Your task to perform on an android device: open chrome and create a bookmark for the current page Image 0: 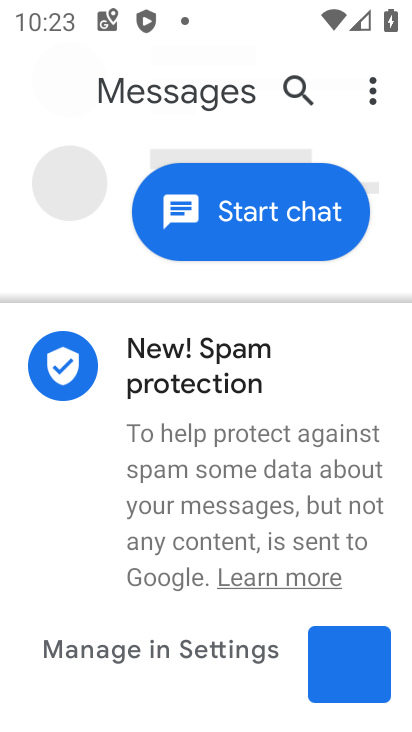
Step 0: press home button
Your task to perform on an android device: open chrome and create a bookmark for the current page Image 1: 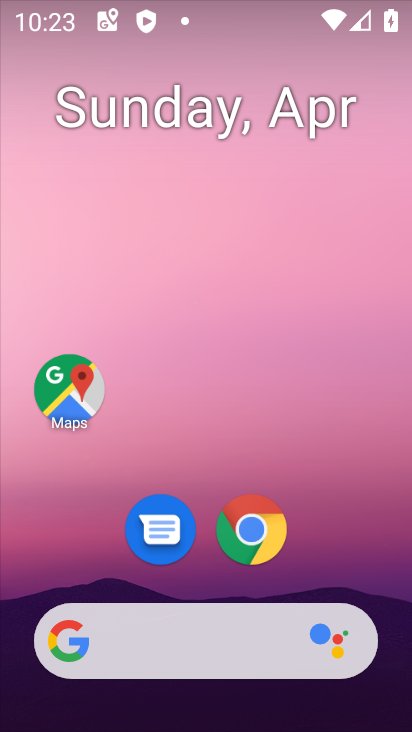
Step 1: click (254, 523)
Your task to perform on an android device: open chrome and create a bookmark for the current page Image 2: 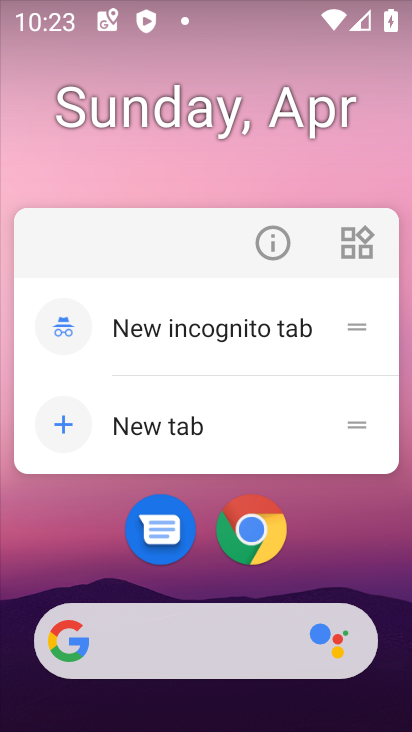
Step 2: click (247, 523)
Your task to perform on an android device: open chrome and create a bookmark for the current page Image 3: 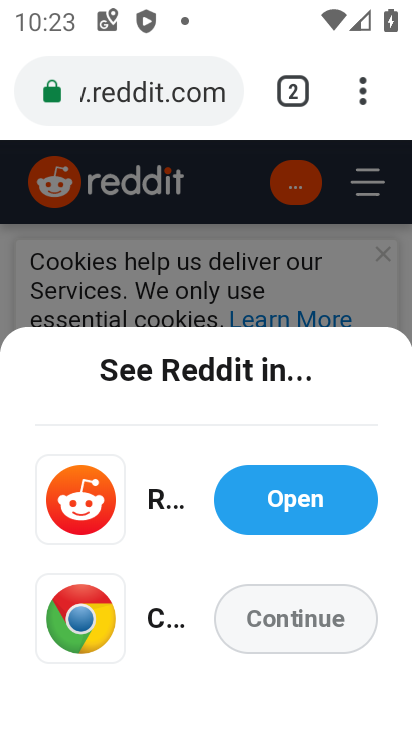
Step 3: click (362, 85)
Your task to perform on an android device: open chrome and create a bookmark for the current page Image 4: 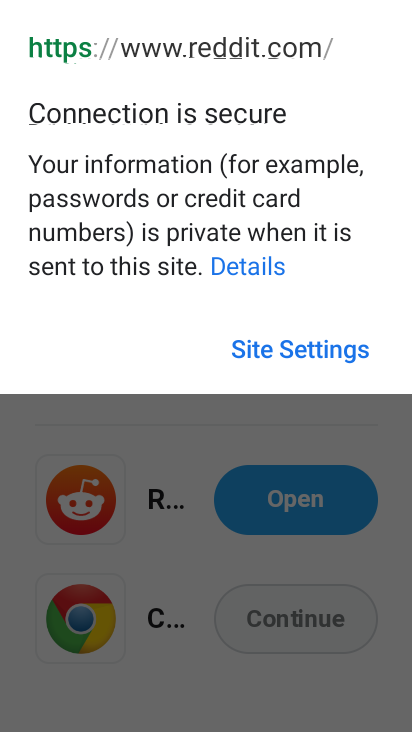
Step 4: click (196, 457)
Your task to perform on an android device: open chrome and create a bookmark for the current page Image 5: 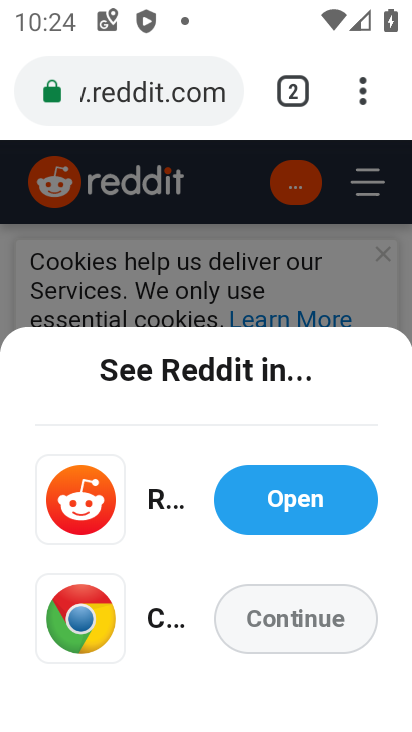
Step 5: click (196, 457)
Your task to perform on an android device: open chrome and create a bookmark for the current page Image 6: 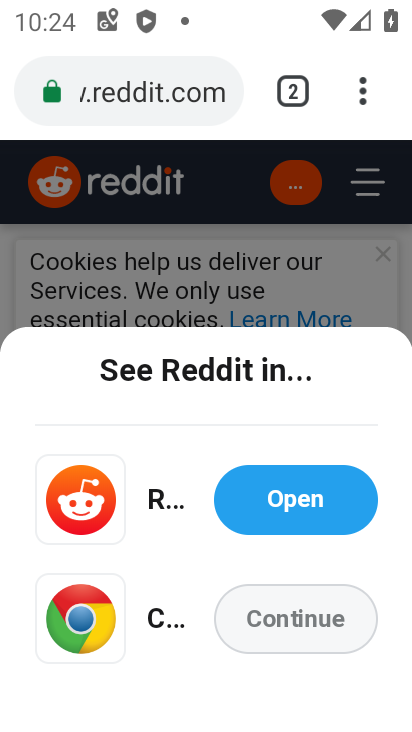
Step 6: click (260, 621)
Your task to perform on an android device: open chrome and create a bookmark for the current page Image 7: 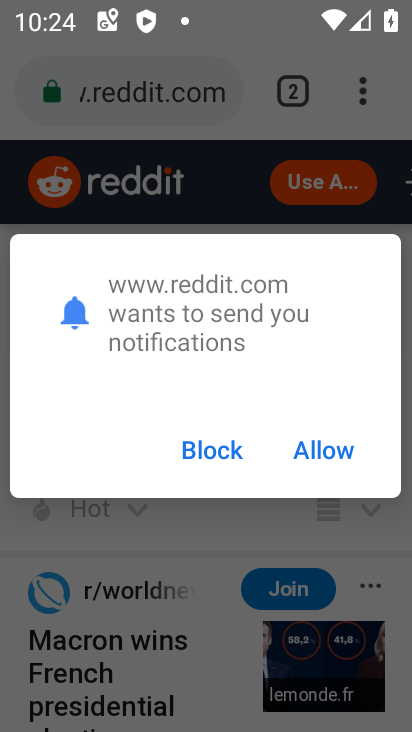
Step 7: click (204, 464)
Your task to perform on an android device: open chrome and create a bookmark for the current page Image 8: 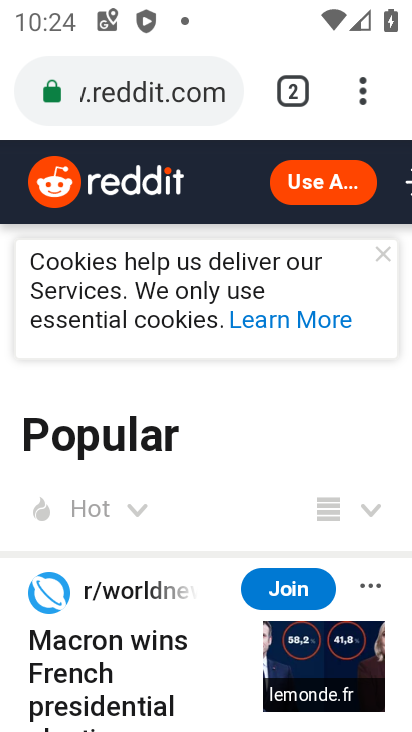
Step 8: click (362, 82)
Your task to perform on an android device: open chrome and create a bookmark for the current page Image 9: 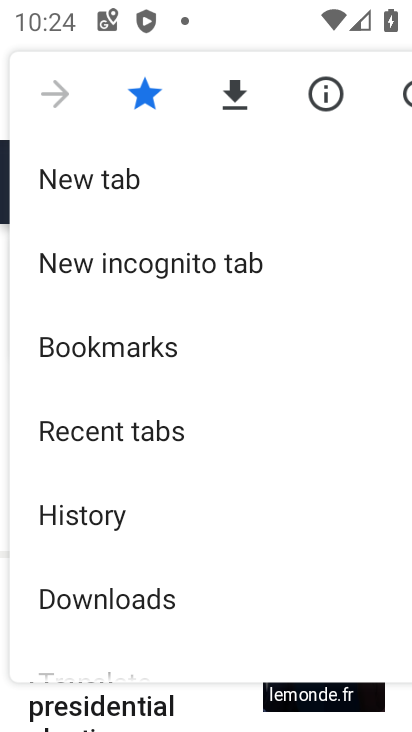
Step 9: click (144, 97)
Your task to perform on an android device: open chrome and create a bookmark for the current page Image 10: 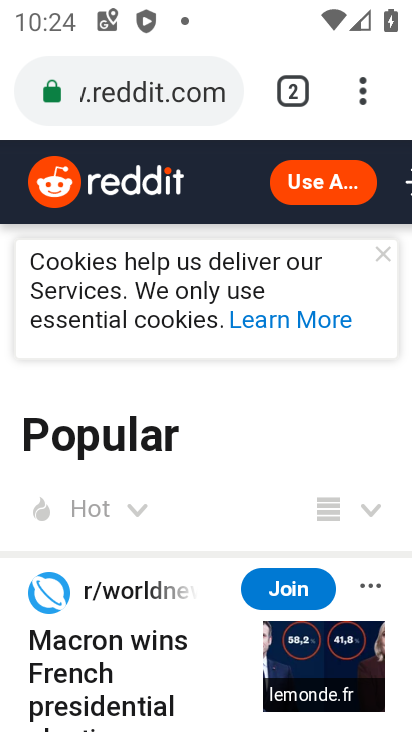
Step 10: task complete